Your task to perform on an android device: find snoozed emails in the gmail app Image 0: 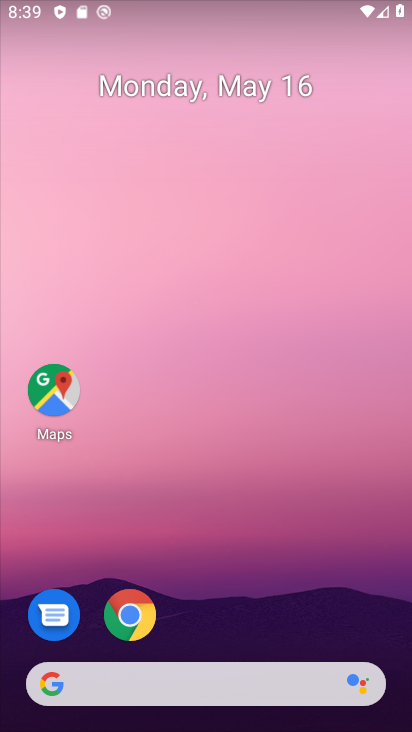
Step 0: drag from (195, 649) to (215, 459)
Your task to perform on an android device: find snoozed emails in the gmail app Image 1: 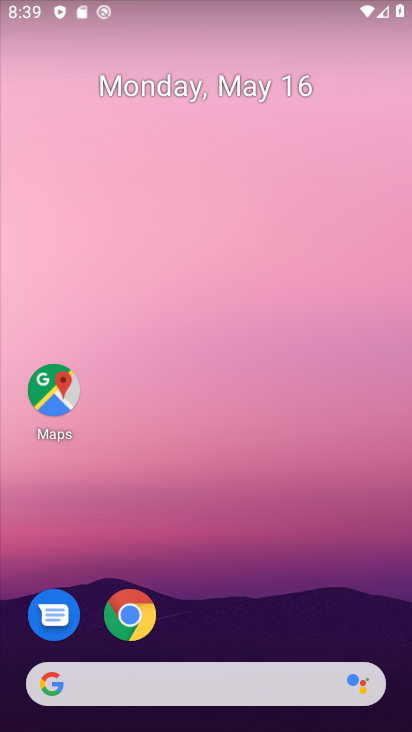
Step 1: drag from (199, 638) to (258, 290)
Your task to perform on an android device: find snoozed emails in the gmail app Image 2: 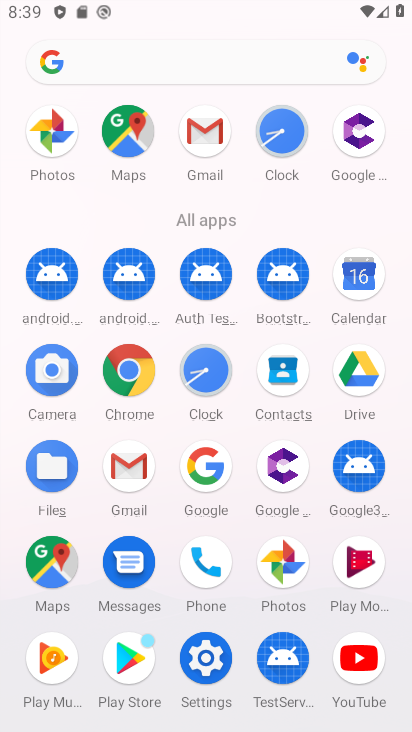
Step 2: click (138, 467)
Your task to perform on an android device: find snoozed emails in the gmail app Image 3: 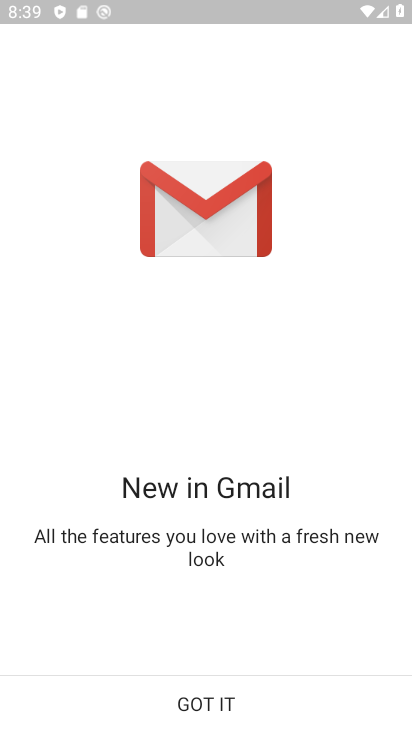
Step 3: click (197, 684)
Your task to perform on an android device: find snoozed emails in the gmail app Image 4: 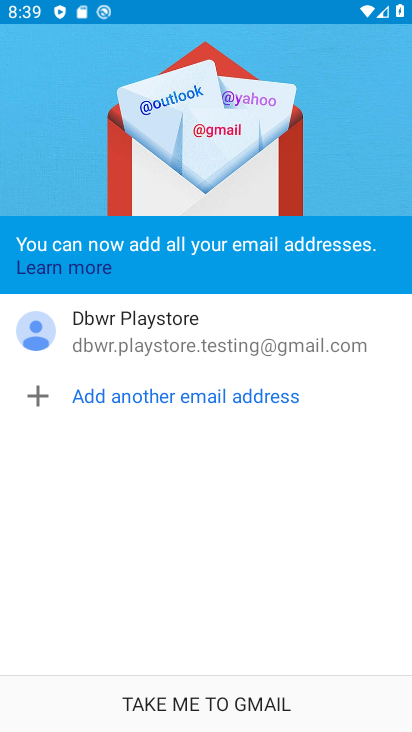
Step 4: click (193, 703)
Your task to perform on an android device: find snoozed emails in the gmail app Image 5: 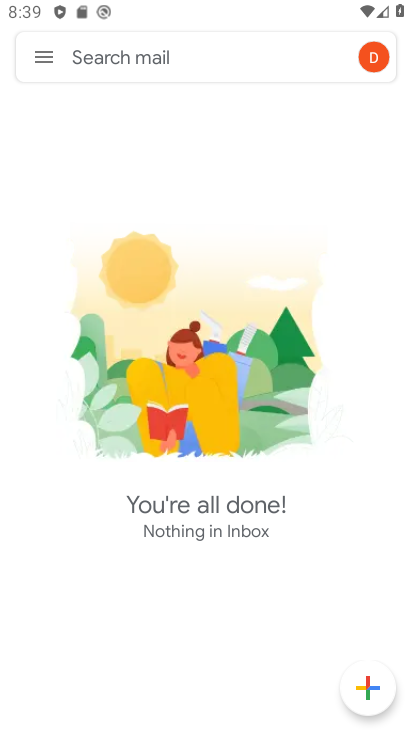
Step 5: click (55, 65)
Your task to perform on an android device: find snoozed emails in the gmail app Image 6: 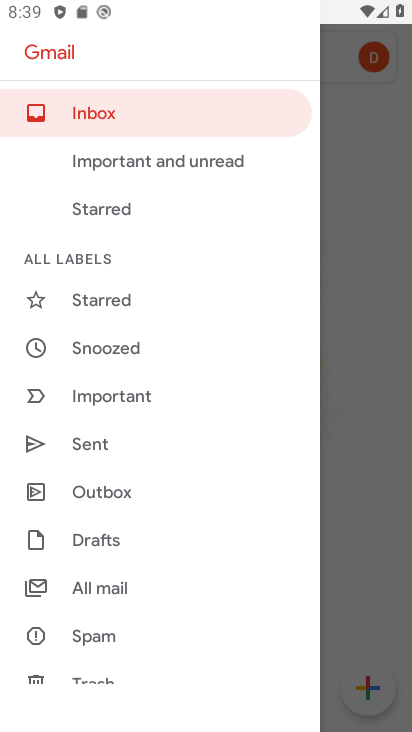
Step 6: click (132, 351)
Your task to perform on an android device: find snoozed emails in the gmail app Image 7: 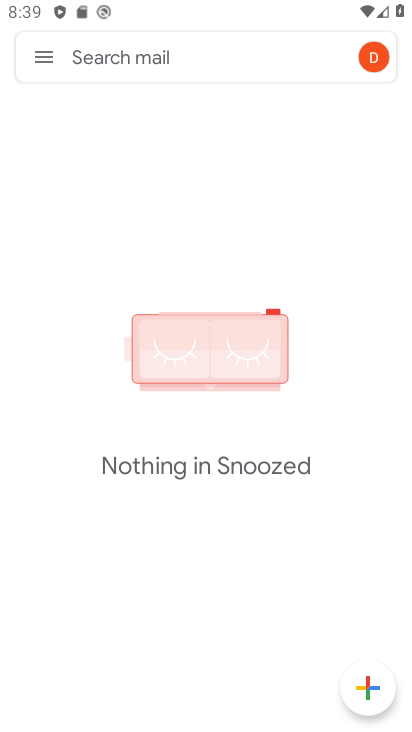
Step 7: task complete